Your task to perform on an android device: refresh tabs in the chrome app Image 0: 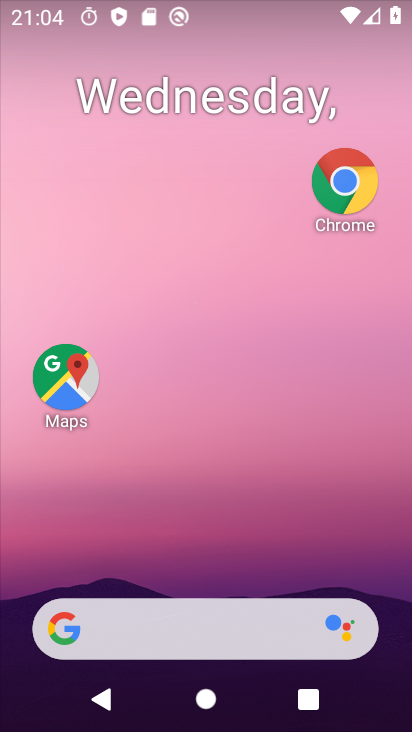
Step 0: drag from (260, 633) to (350, 285)
Your task to perform on an android device: refresh tabs in the chrome app Image 1: 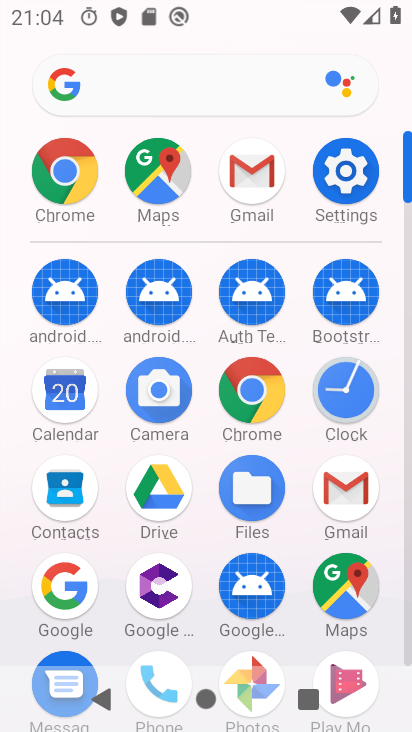
Step 1: click (74, 184)
Your task to perform on an android device: refresh tabs in the chrome app Image 2: 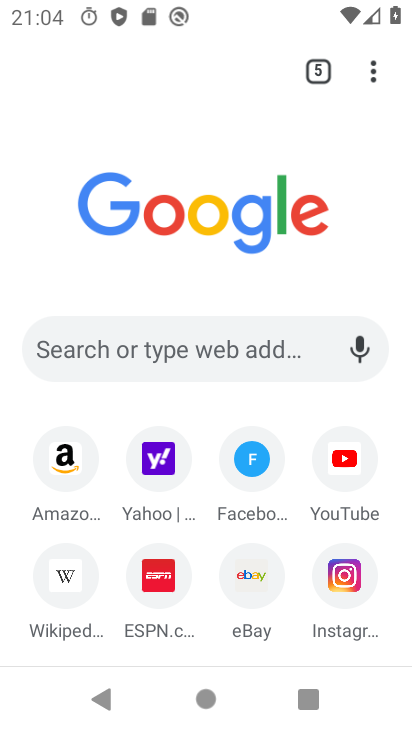
Step 2: click (383, 64)
Your task to perform on an android device: refresh tabs in the chrome app Image 3: 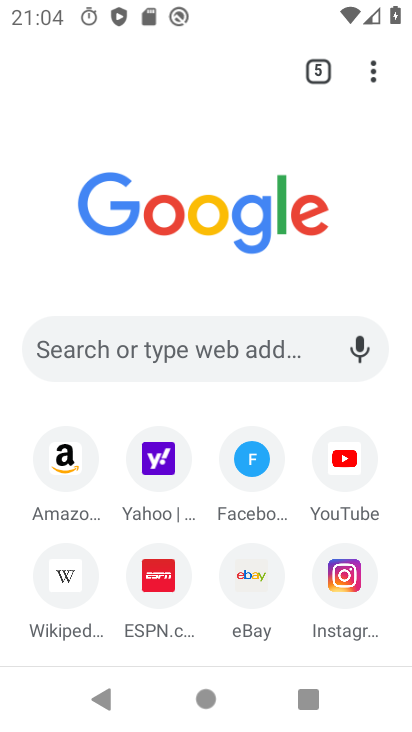
Step 3: click (370, 73)
Your task to perform on an android device: refresh tabs in the chrome app Image 4: 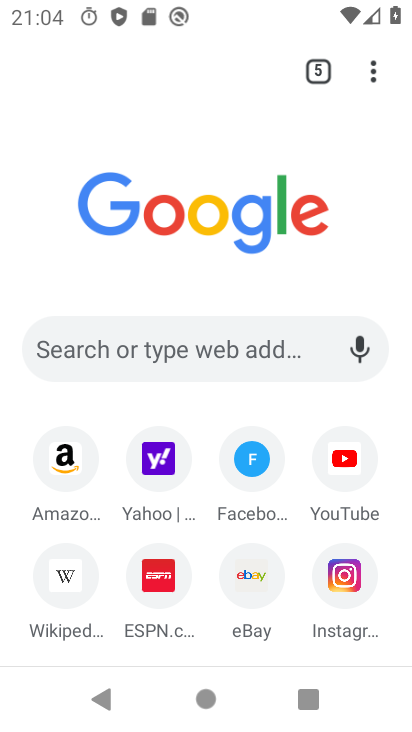
Step 4: click (369, 70)
Your task to perform on an android device: refresh tabs in the chrome app Image 5: 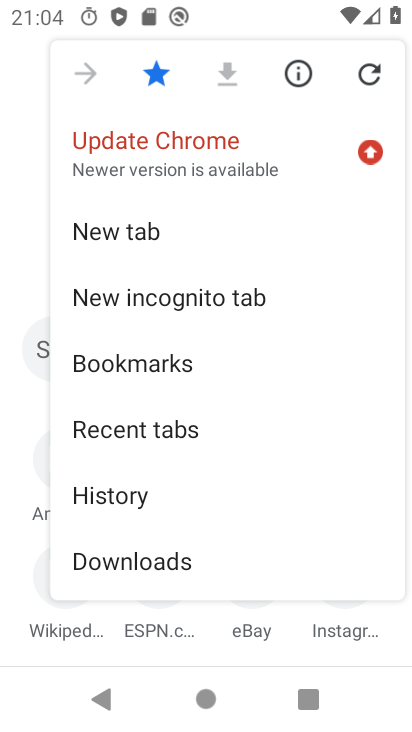
Step 5: click (362, 85)
Your task to perform on an android device: refresh tabs in the chrome app Image 6: 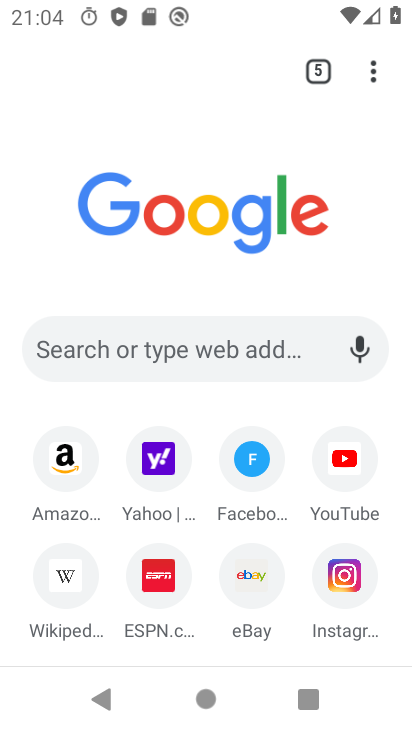
Step 6: task complete